Your task to perform on an android device: Go to Google Image 0: 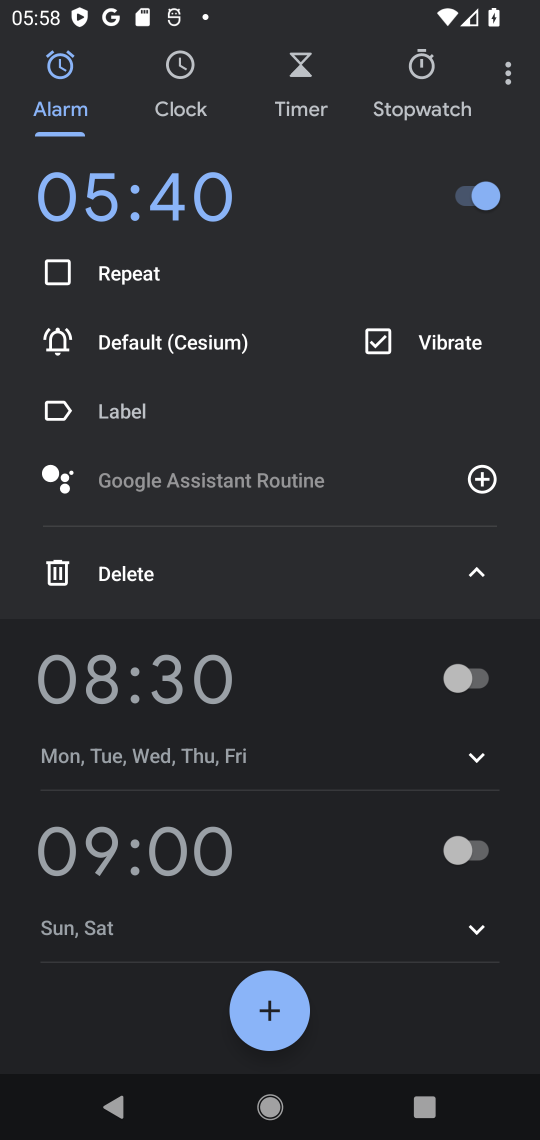
Step 0: press home button
Your task to perform on an android device: Go to Google Image 1: 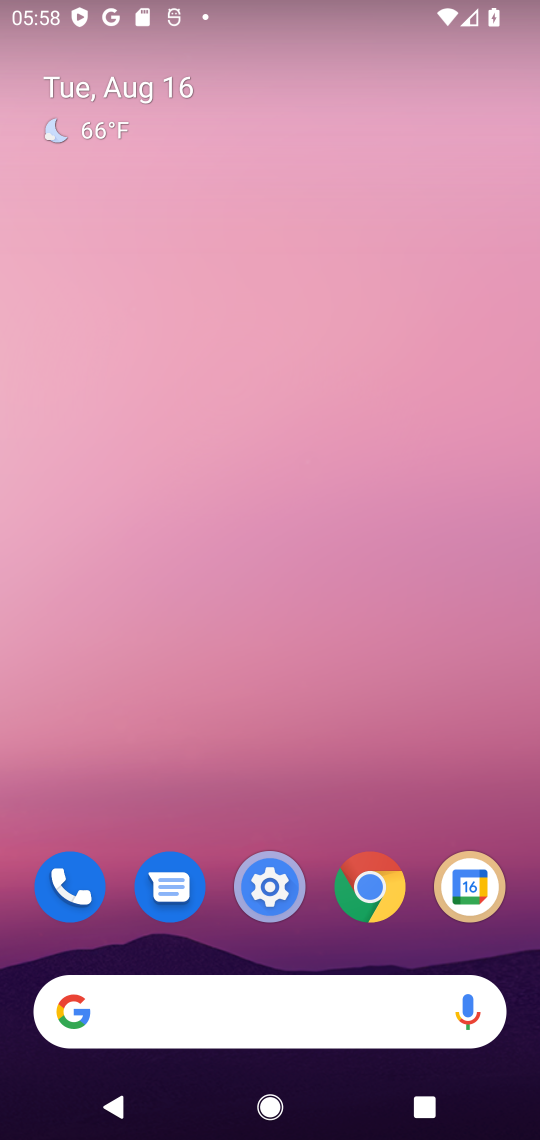
Step 1: drag from (298, 757) to (396, 144)
Your task to perform on an android device: Go to Google Image 2: 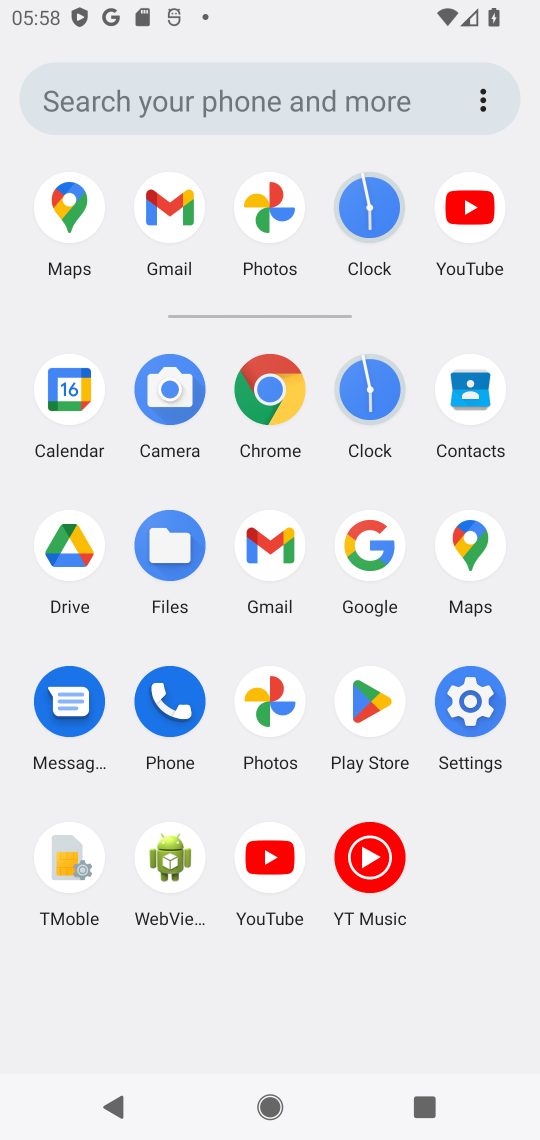
Step 2: click (358, 536)
Your task to perform on an android device: Go to Google Image 3: 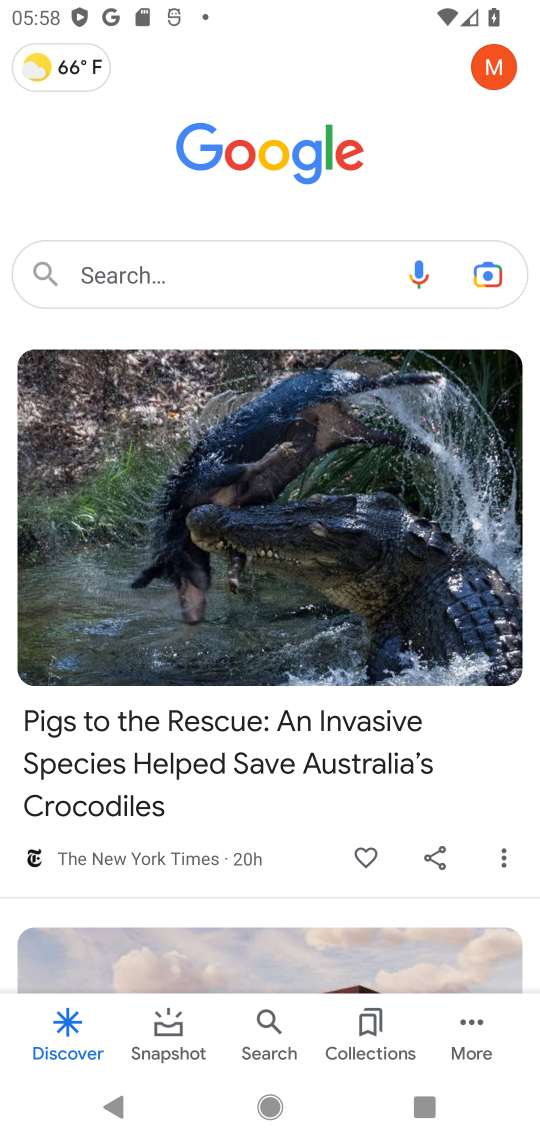
Step 3: task complete